Your task to perform on an android device: turn off wifi Image 0: 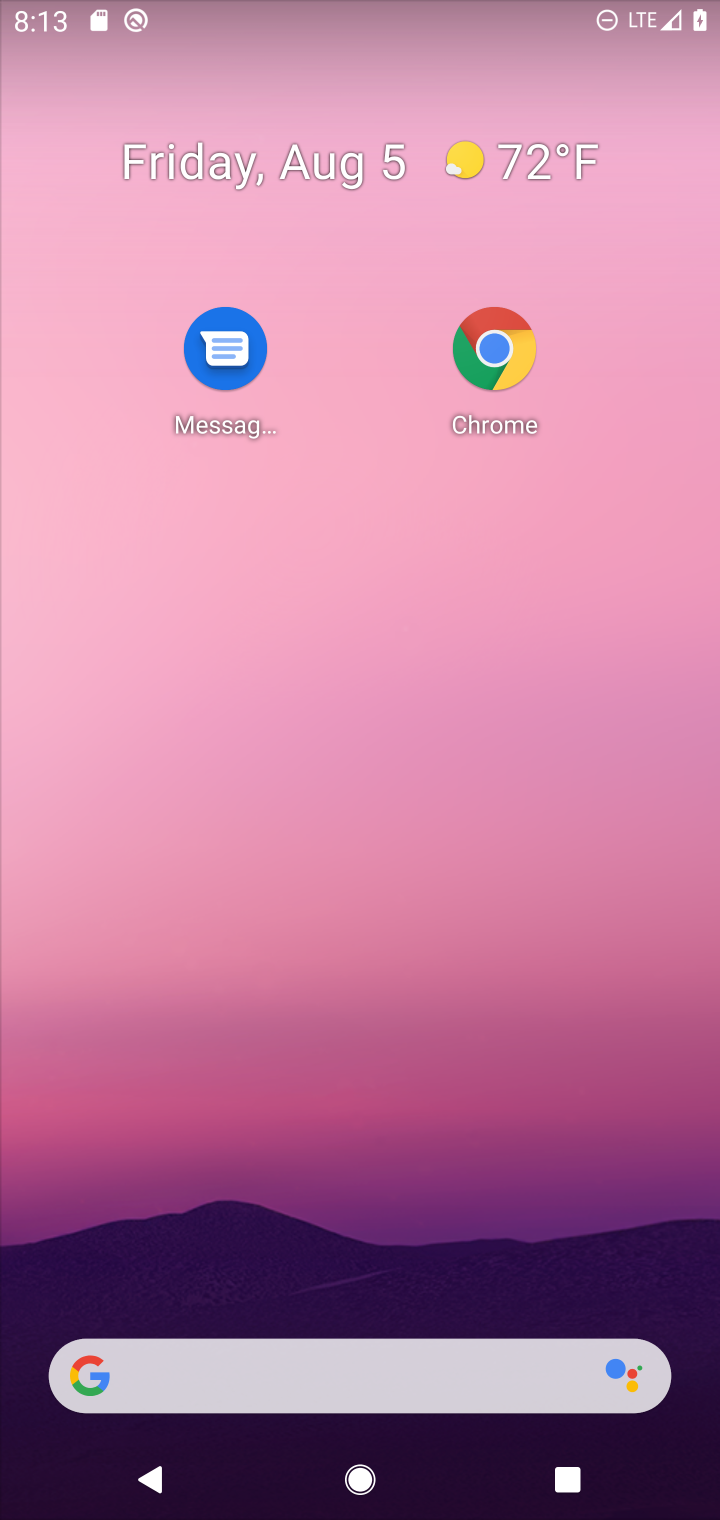
Step 0: drag from (499, 1406) to (382, 361)
Your task to perform on an android device: turn off wifi Image 1: 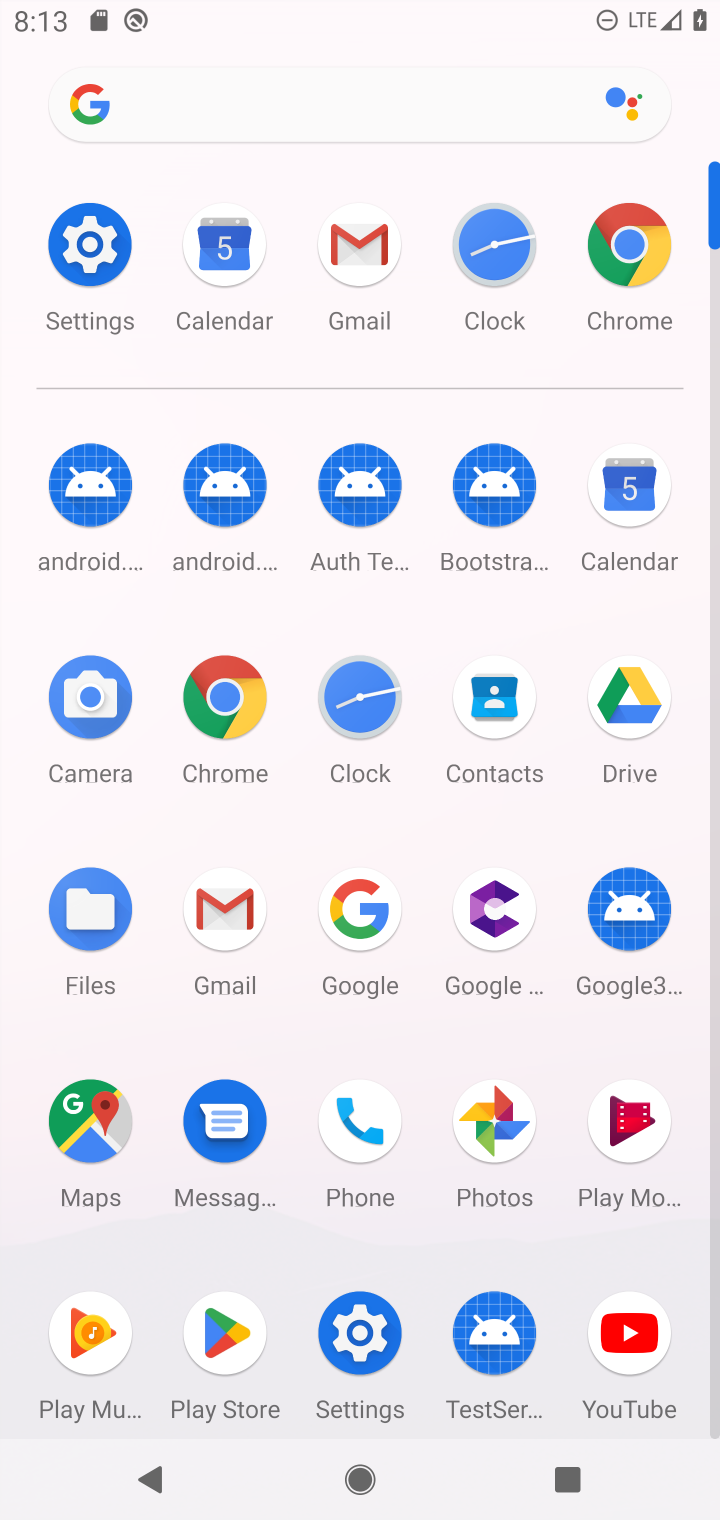
Step 1: click (102, 245)
Your task to perform on an android device: turn off wifi Image 2: 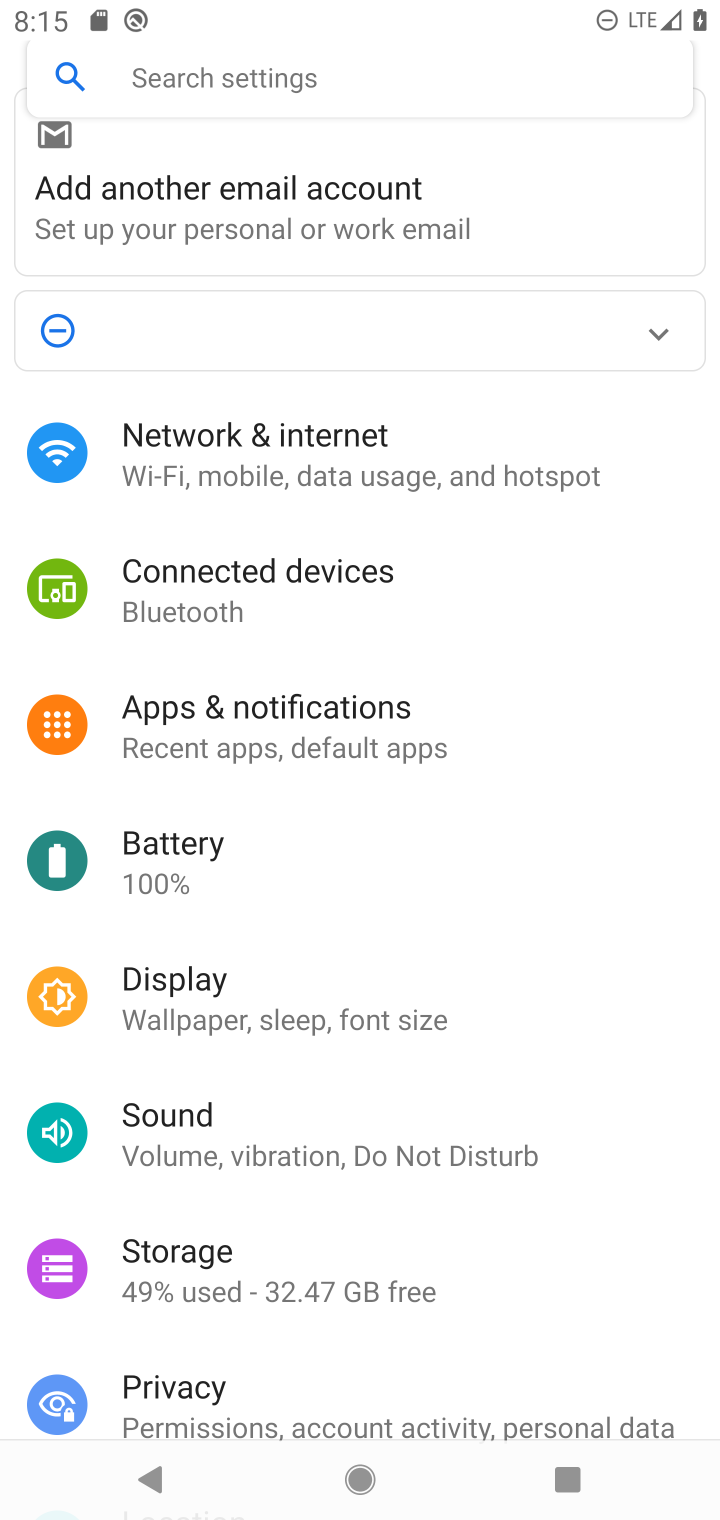
Step 2: click (306, 480)
Your task to perform on an android device: turn off wifi Image 3: 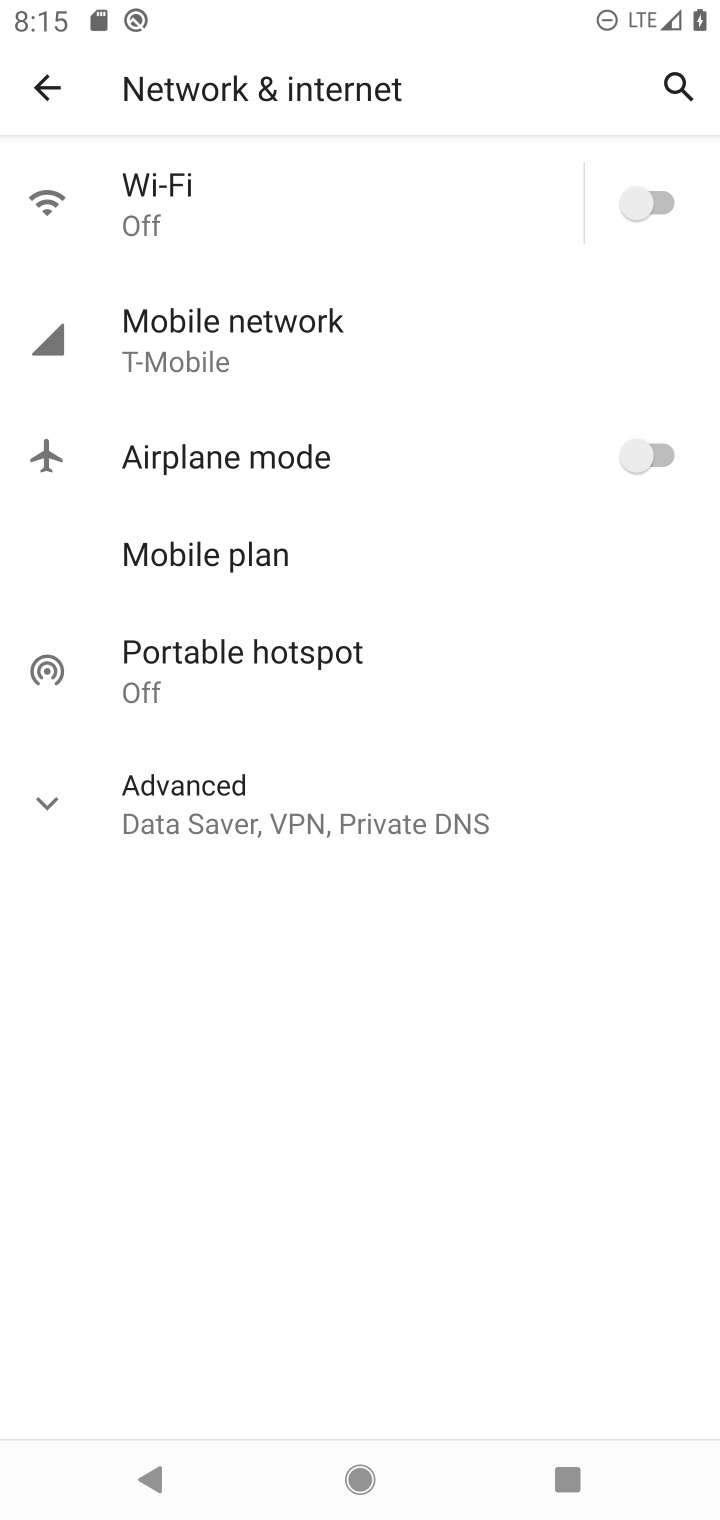
Step 3: click (260, 207)
Your task to perform on an android device: turn off wifi Image 4: 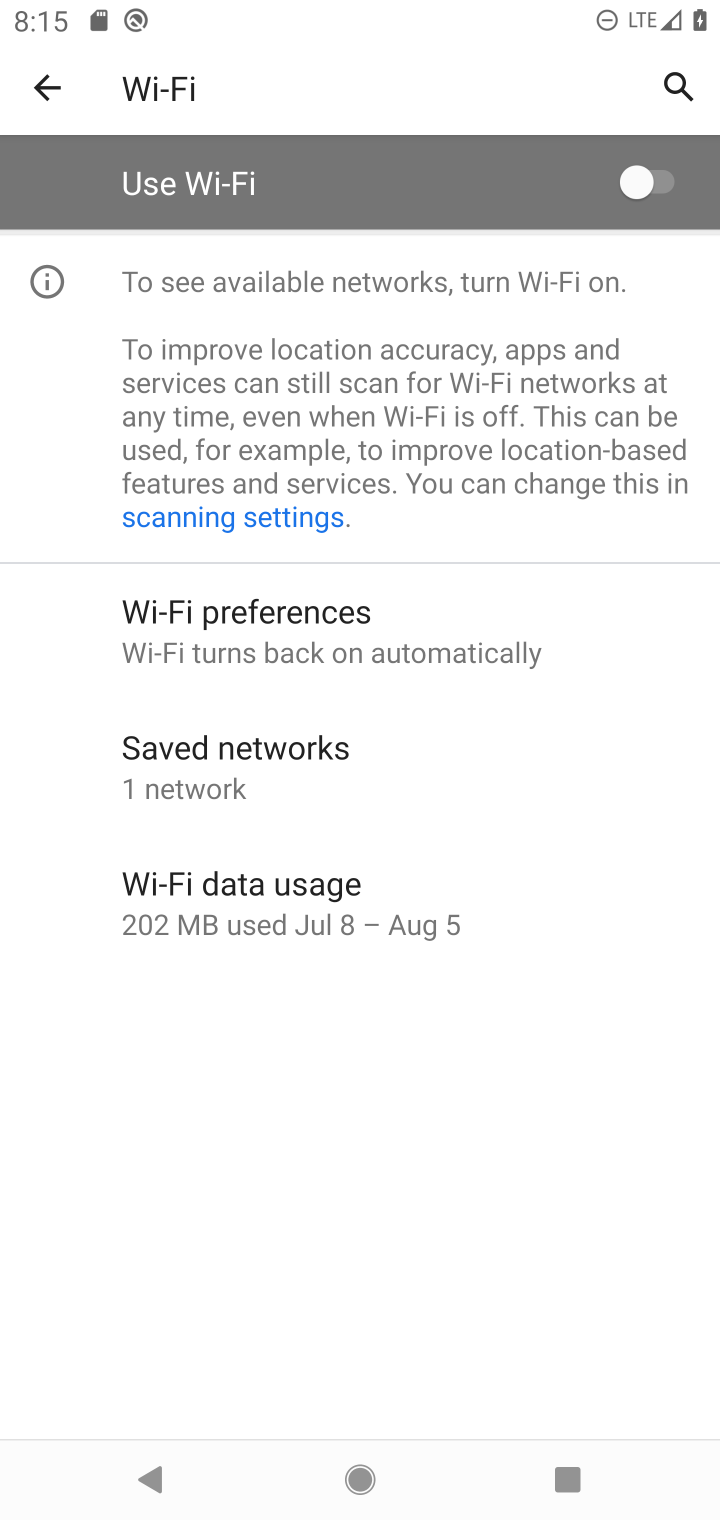
Step 4: task complete